Your task to perform on an android device: Open location settings Image 0: 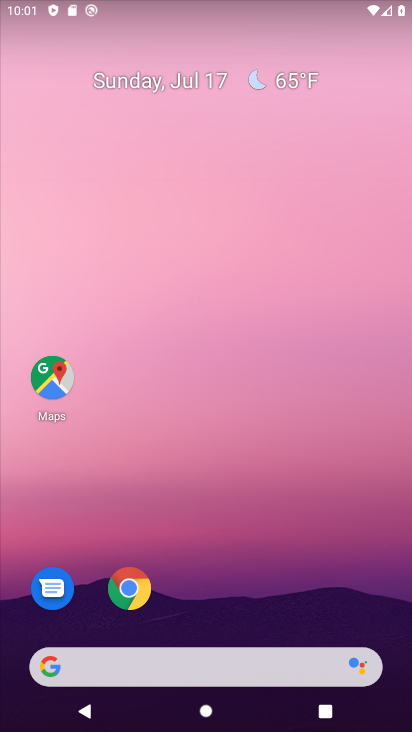
Step 0: drag from (269, 570) to (226, 201)
Your task to perform on an android device: Open location settings Image 1: 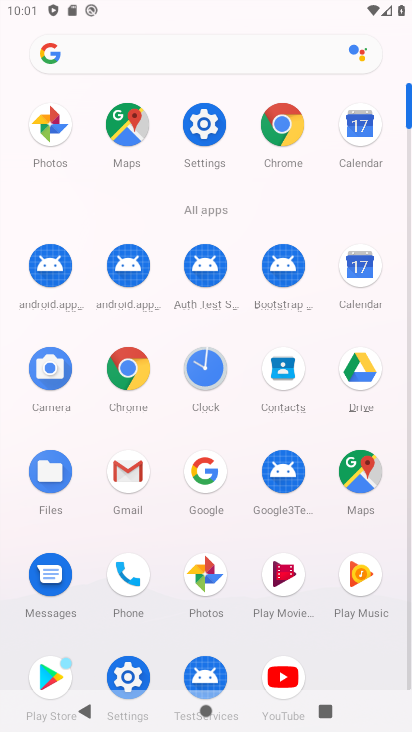
Step 1: click (200, 125)
Your task to perform on an android device: Open location settings Image 2: 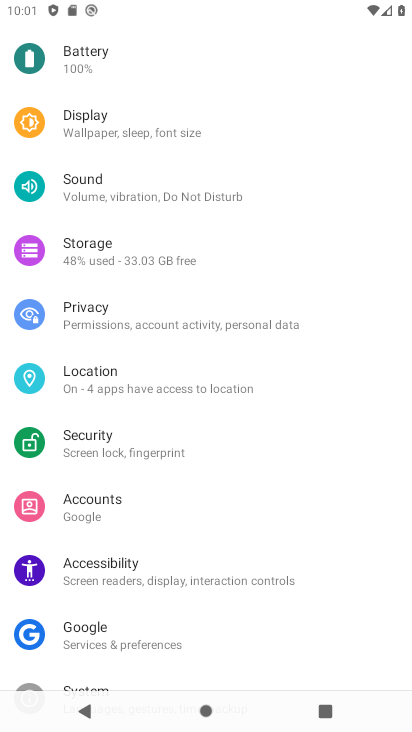
Step 2: click (97, 367)
Your task to perform on an android device: Open location settings Image 3: 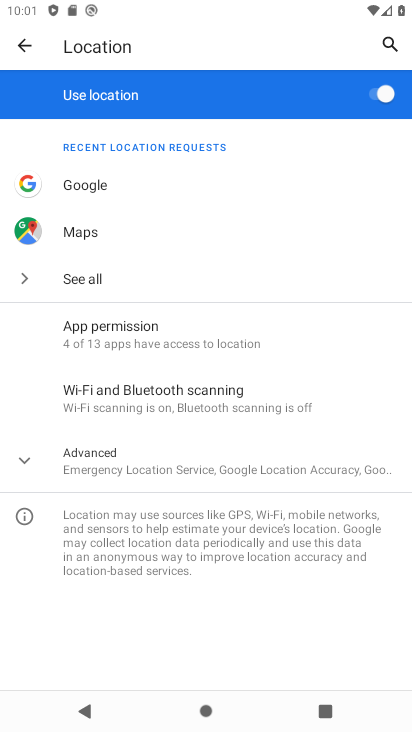
Step 3: task complete